Your task to perform on an android device: toggle airplane mode Image 0: 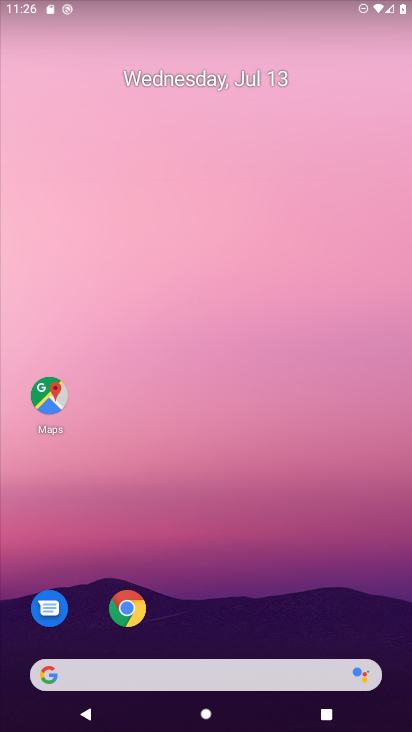
Step 0: click (245, 608)
Your task to perform on an android device: toggle airplane mode Image 1: 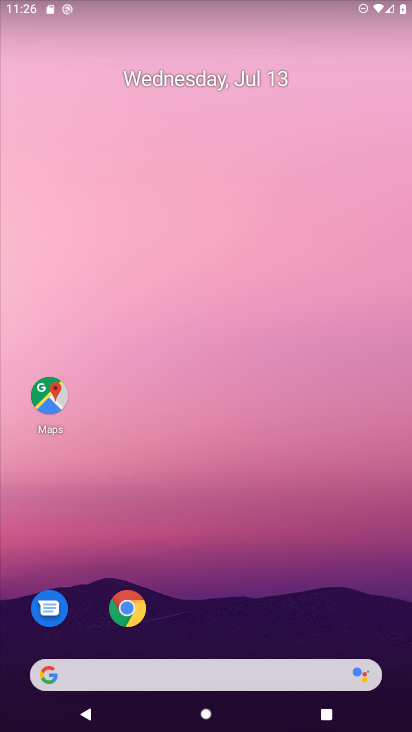
Step 1: drag from (245, 605) to (289, 19)
Your task to perform on an android device: toggle airplane mode Image 2: 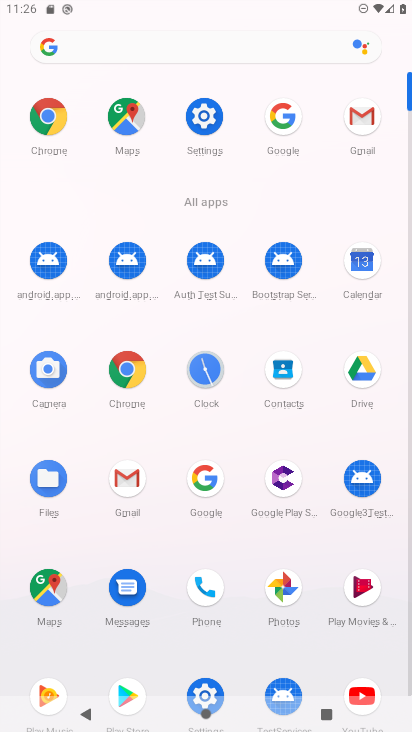
Step 2: click (195, 110)
Your task to perform on an android device: toggle airplane mode Image 3: 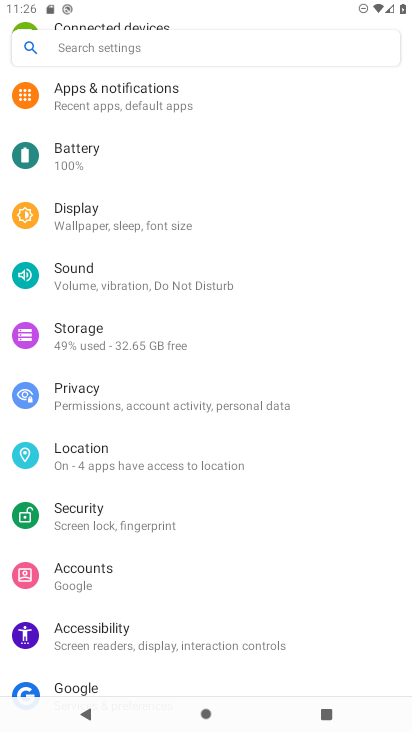
Step 3: drag from (156, 174) to (187, 466)
Your task to perform on an android device: toggle airplane mode Image 4: 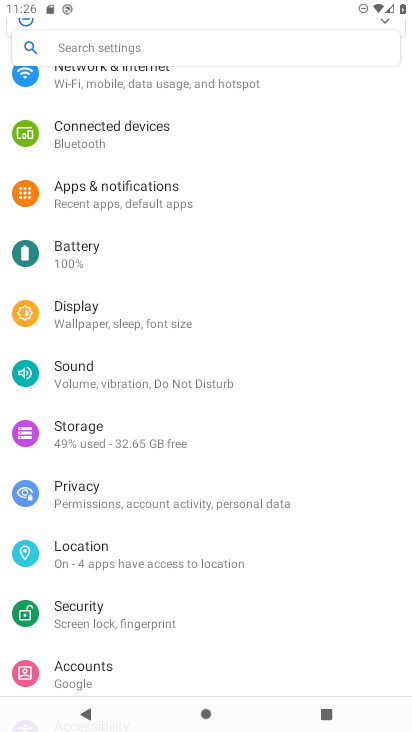
Step 4: drag from (273, 120) to (291, 500)
Your task to perform on an android device: toggle airplane mode Image 5: 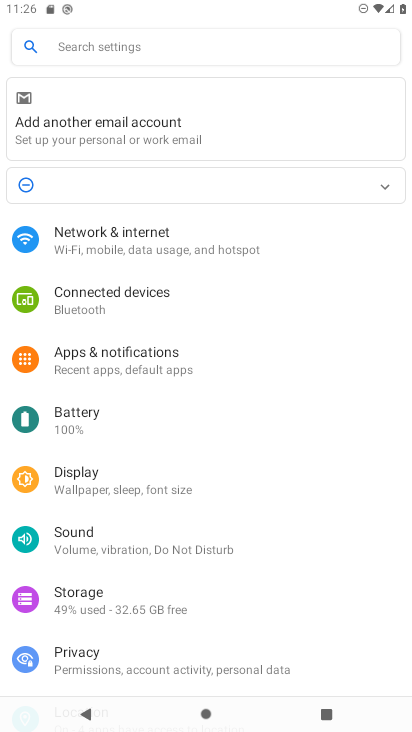
Step 5: click (266, 247)
Your task to perform on an android device: toggle airplane mode Image 6: 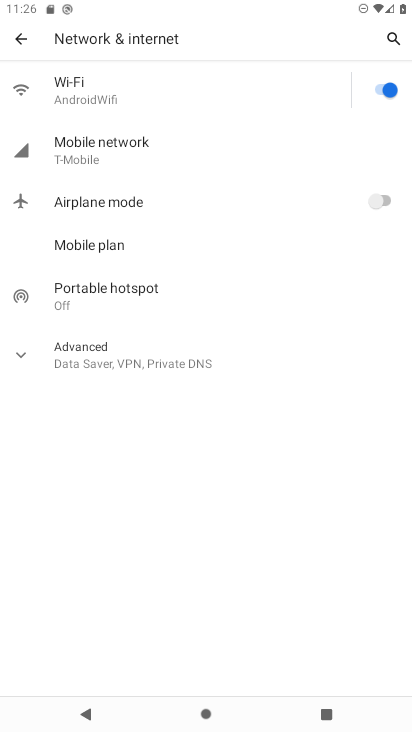
Step 6: click (396, 206)
Your task to perform on an android device: toggle airplane mode Image 7: 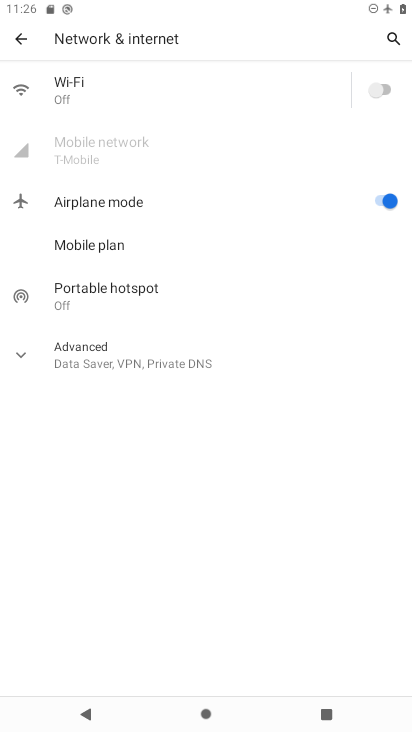
Step 7: task complete